Your task to perform on an android device: change notifications settings Image 0: 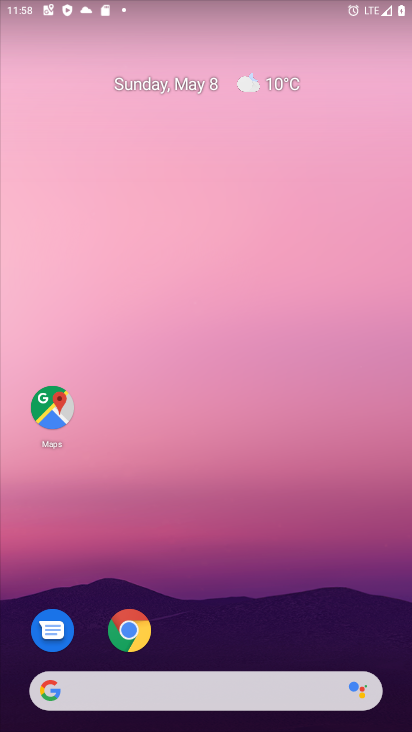
Step 0: drag from (259, 547) to (174, 30)
Your task to perform on an android device: change notifications settings Image 1: 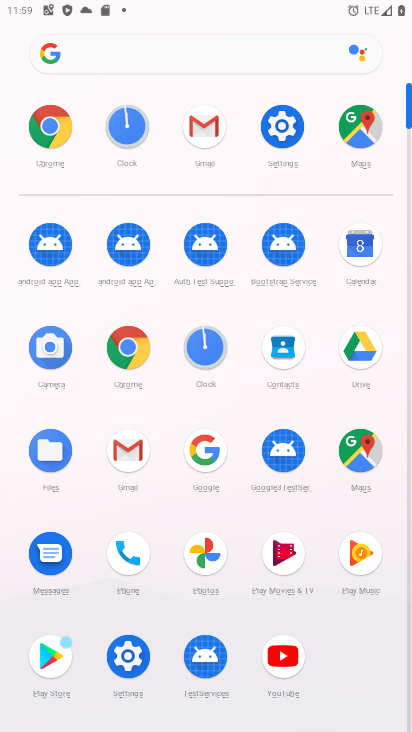
Step 1: click (147, 654)
Your task to perform on an android device: change notifications settings Image 2: 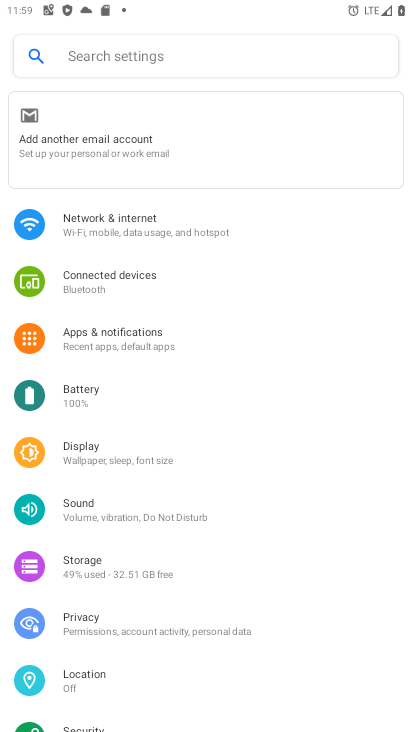
Step 2: click (195, 354)
Your task to perform on an android device: change notifications settings Image 3: 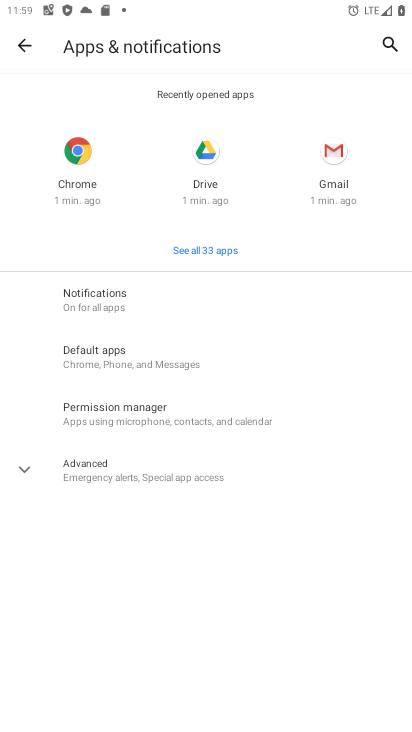
Step 3: click (136, 304)
Your task to perform on an android device: change notifications settings Image 4: 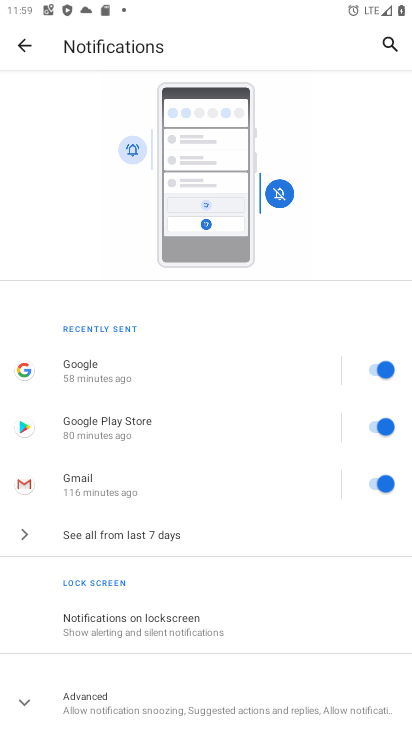
Step 4: task complete